Your task to perform on an android device: turn on data saver in the chrome app Image 0: 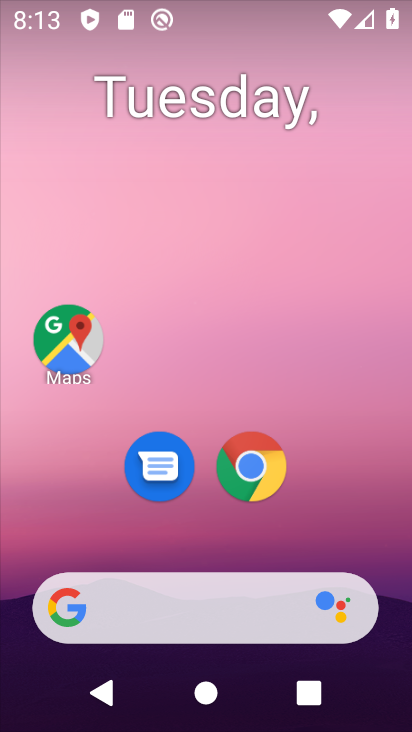
Step 0: drag from (206, 534) to (243, 71)
Your task to perform on an android device: turn on data saver in the chrome app Image 1: 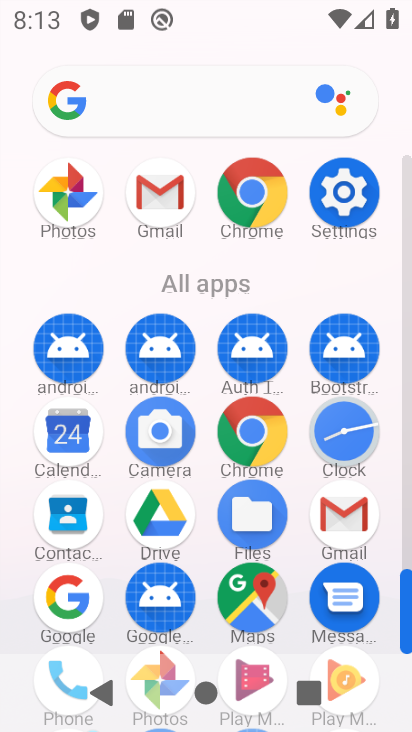
Step 1: click (268, 439)
Your task to perform on an android device: turn on data saver in the chrome app Image 2: 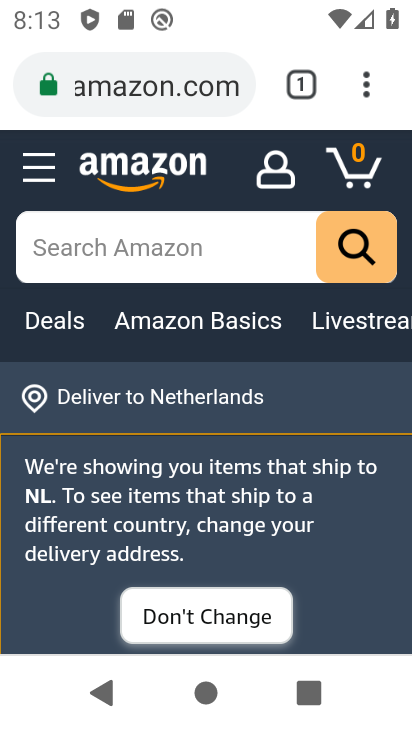
Step 2: click (374, 94)
Your task to perform on an android device: turn on data saver in the chrome app Image 3: 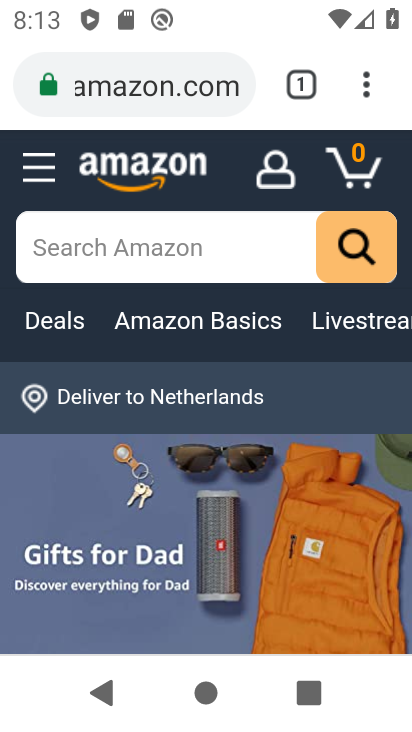
Step 3: click (366, 94)
Your task to perform on an android device: turn on data saver in the chrome app Image 4: 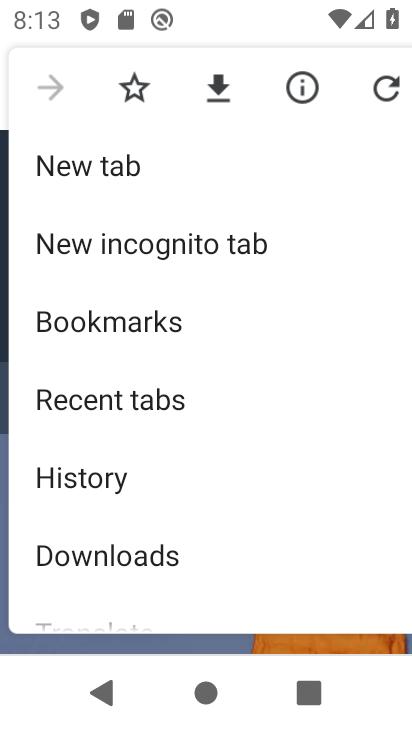
Step 4: drag from (187, 530) to (224, 269)
Your task to perform on an android device: turn on data saver in the chrome app Image 5: 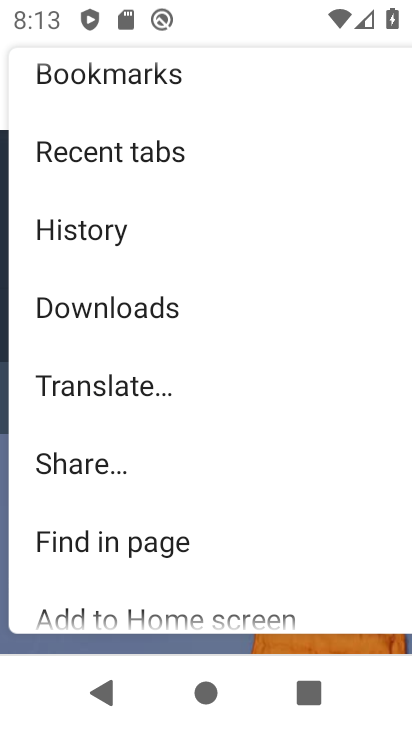
Step 5: drag from (127, 491) to (150, 365)
Your task to perform on an android device: turn on data saver in the chrome app Image 6: 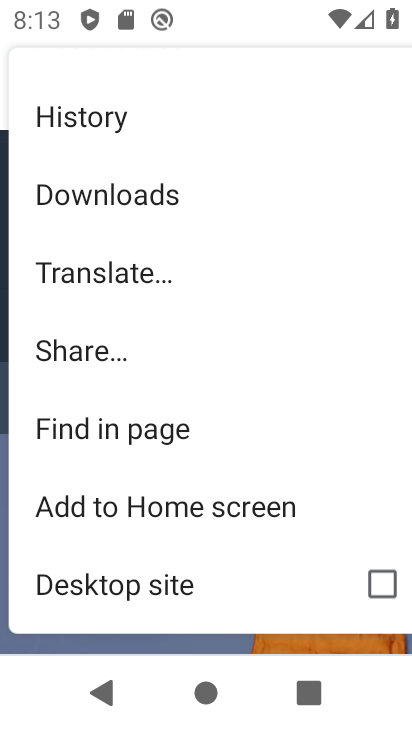
Step 6: drag from (156, 598) to (211, 322)
Your task to perform on an android device: turn on data saver in the chrome app Image 7: 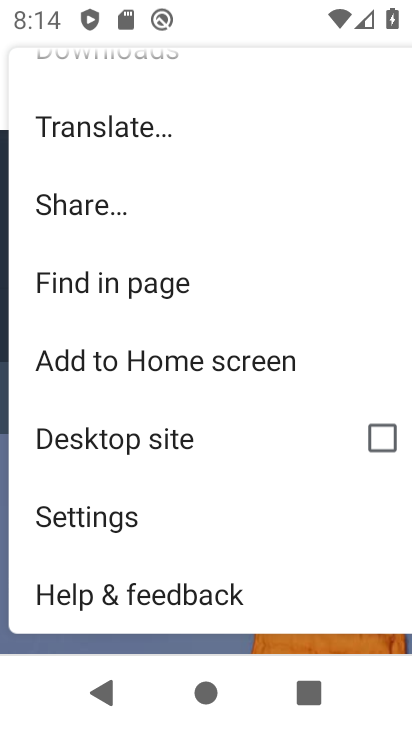
Step 7: click (132, 527)
Your task to perform on an android device: turn on data saver in the chrome app Image 8: 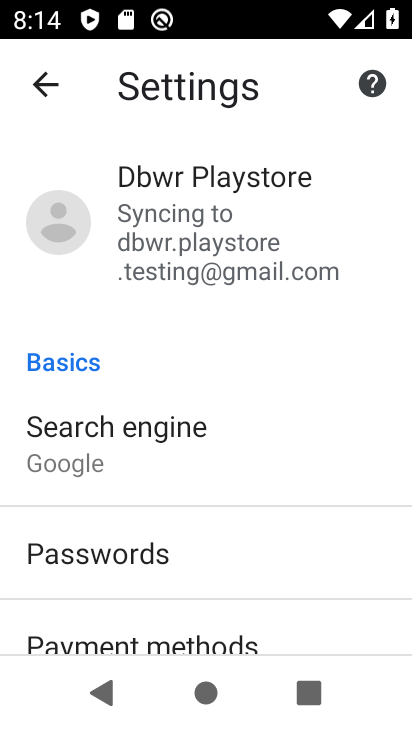
Step 8: drag from (188, 600) to (200, 318)
Your task to perform on an android device: turn on data saver in the chrome app Image 9: 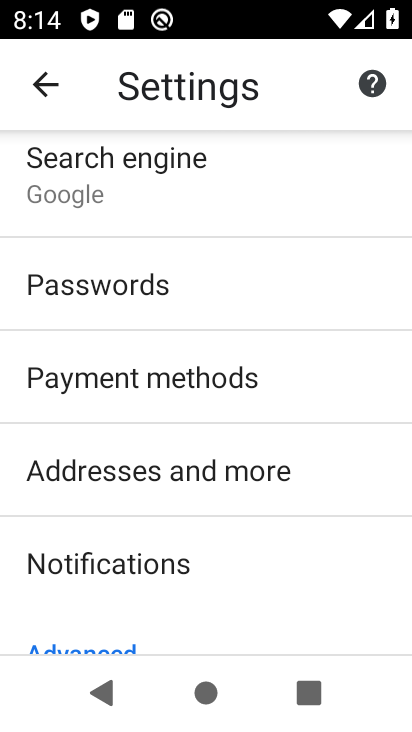
Step 9: drag from (167, 605) to (202, 229)
Your task to perform on an android device: turn on data saver in the chrome app Image 10: 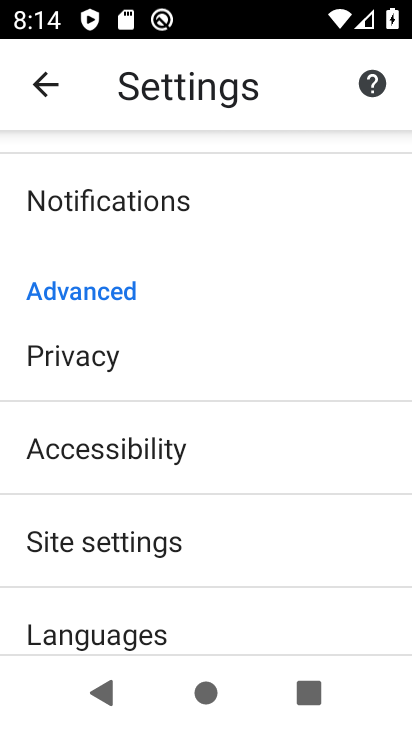
Step 10: drag from (164, 553) to (209, 220)
Your task to perform on an android device: turn on data saver in the chrome app Image 11: 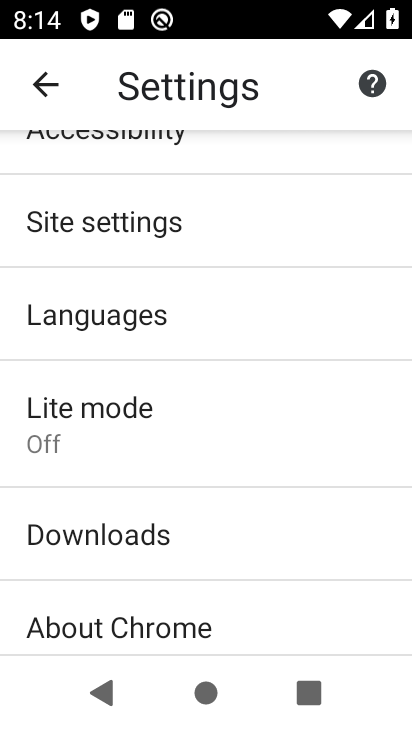
Step 11: click (153, 540)
Your task to perform on an android device: turn on data saver in the chrome app Image 12: 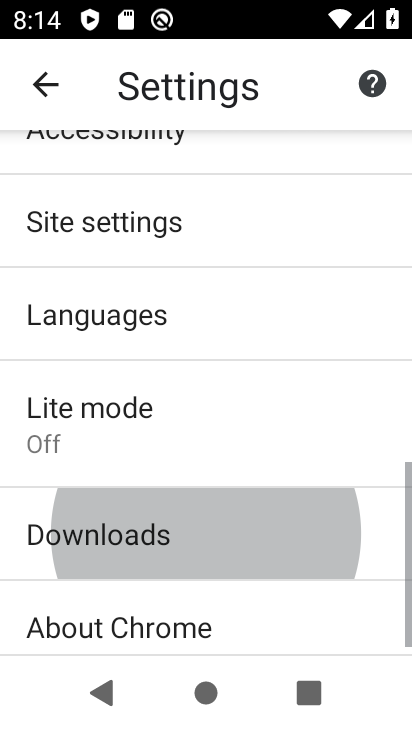
Step 12: drag from (153, 540) to (168, 394)
Your task to perform on an android device: turn on data saver in the chrome app Image 13: 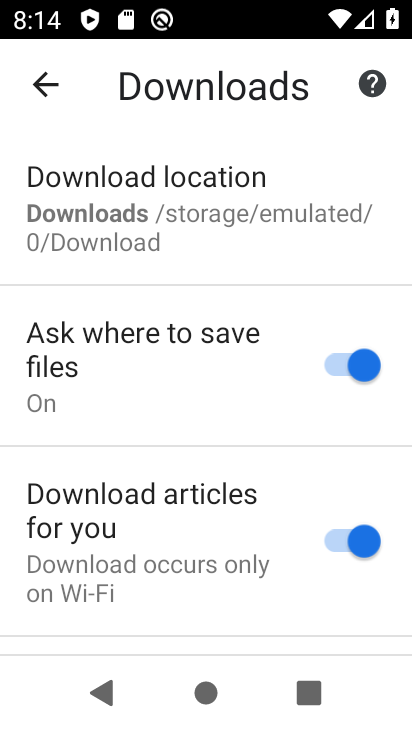
Step 13: click (48, 79)
Your task to perform on an android device: turn on data saver in the chrome app Image 14: 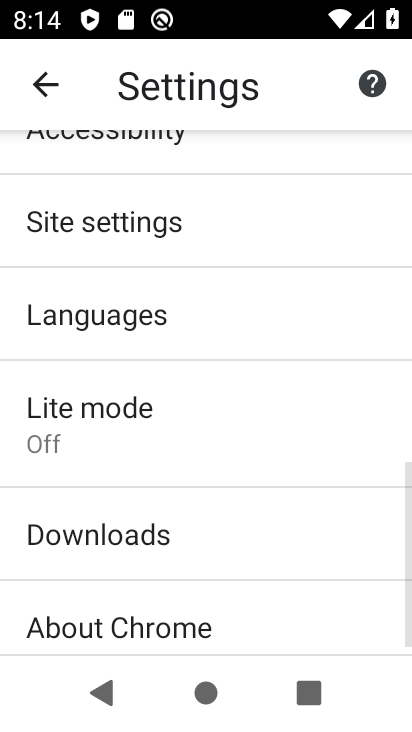
Step 14: click (146, 420)
Your task to perform on an android device: turn on data saver in the chrome app Image 15: 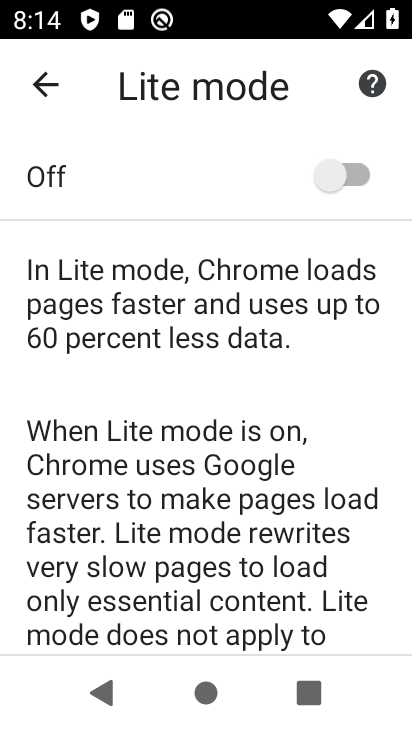
Step 15: click (351, 176)
Your task to perform on an android device: turn on data saver in the chrome app Image 16: 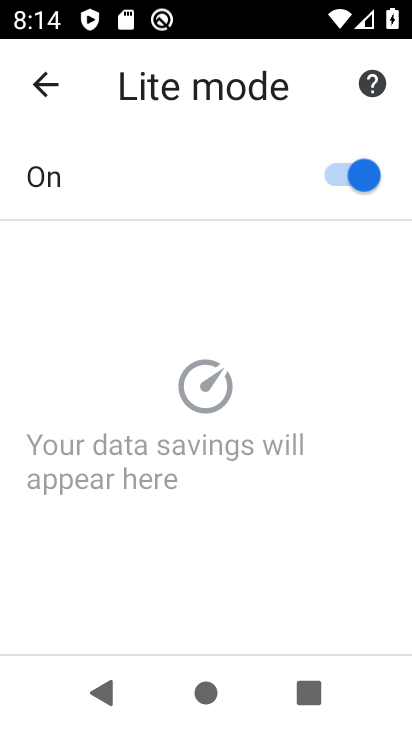
Step 16: task complete